Your task to perform on an android device: change the clock display to show seconds Image 0: 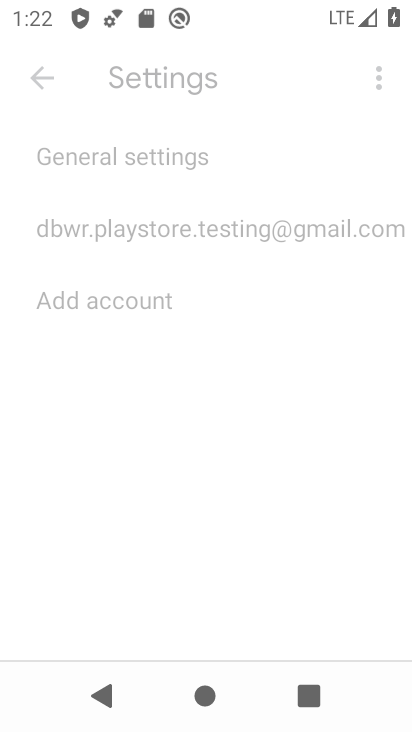
Step 0: press home button
Your task to perform on an android device: change the clock display to show seconds Image 1: 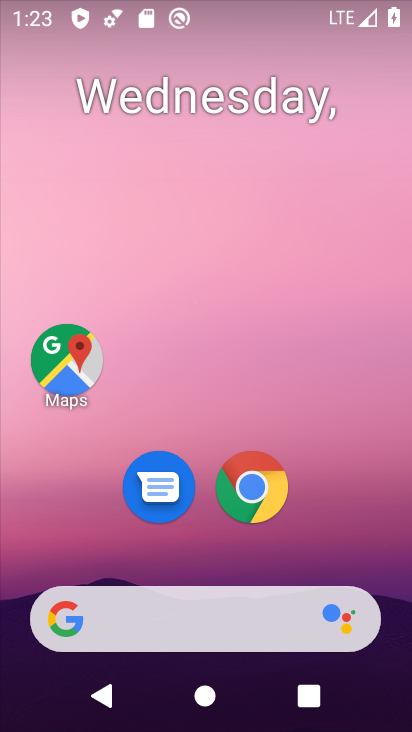
Step 1: drag from (353, 558) to (291, 128)
Your task to perform on an android device: change the clock display to show seconds Image 2: 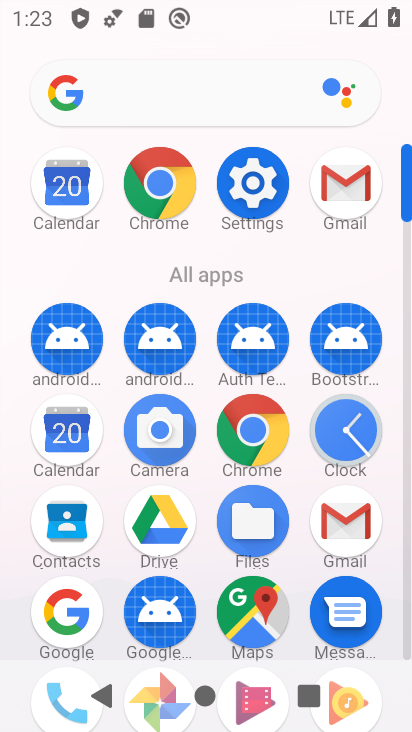
Step 2: click (335, 419)
Your task to perform on an android device: change the clock display to show seconds Image 3: 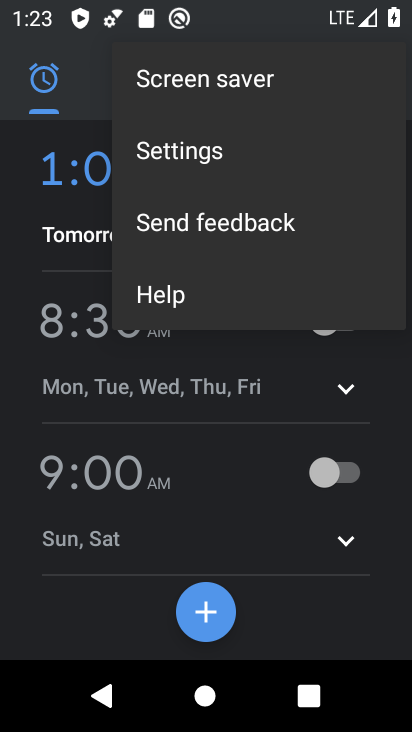
Step 3: click (264, 168)
Your task to perform on an android device: change the clock display to show seconds Image 4: 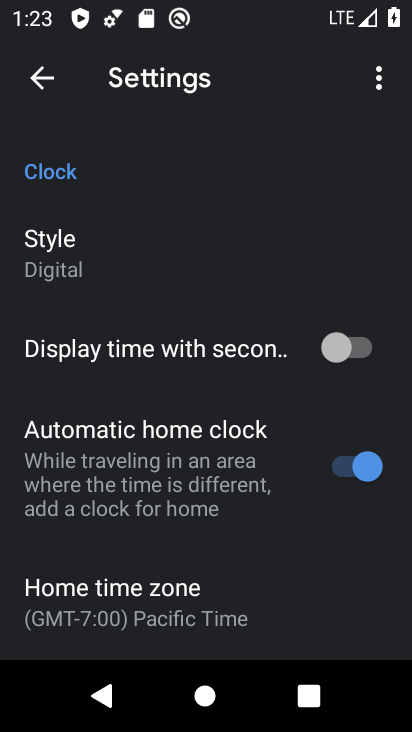
Step 4: click (344, 353)
Your task to perform on an android device: change the clock display to show seconds Image 5: 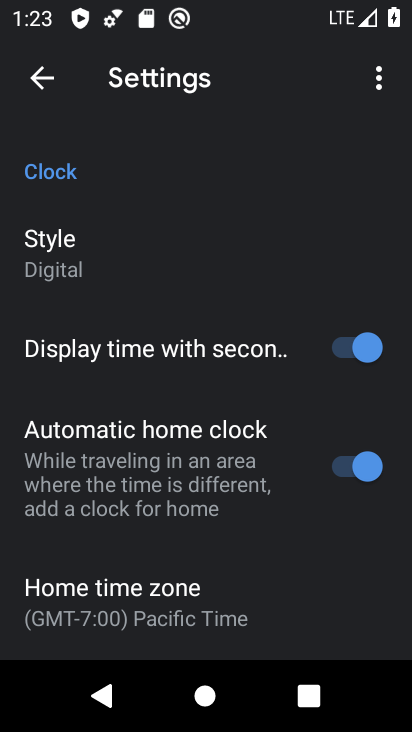
Step 5: task complete